Your task to perform on an android device: Add alienware area 51 to the cart on newegg.com Image 0: 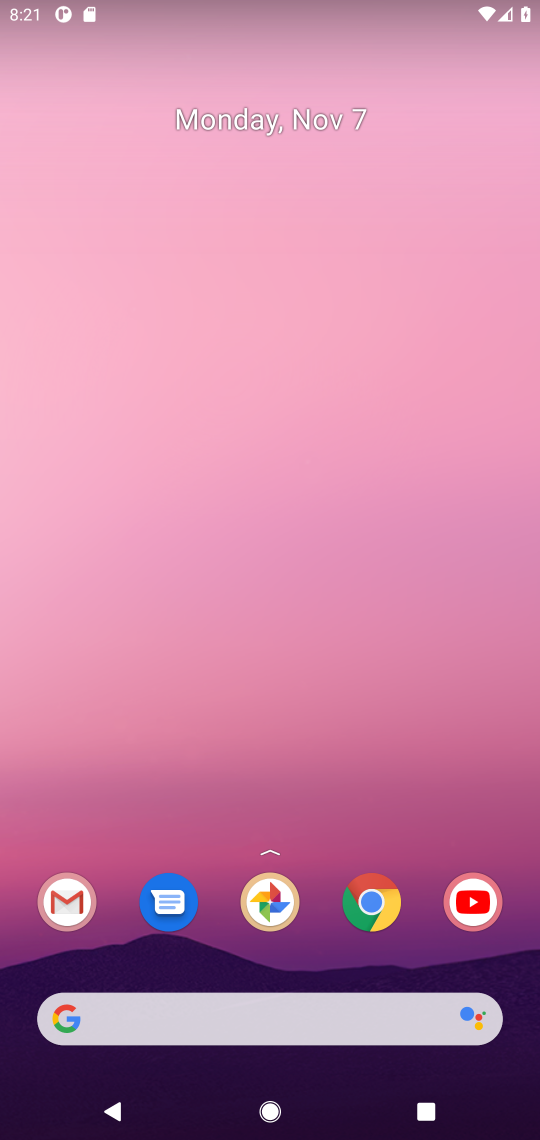
Step 0: click (382, 902)
Your task to perform on an android device: Add alienware area 51 to the cart on newegg.com Image 1: 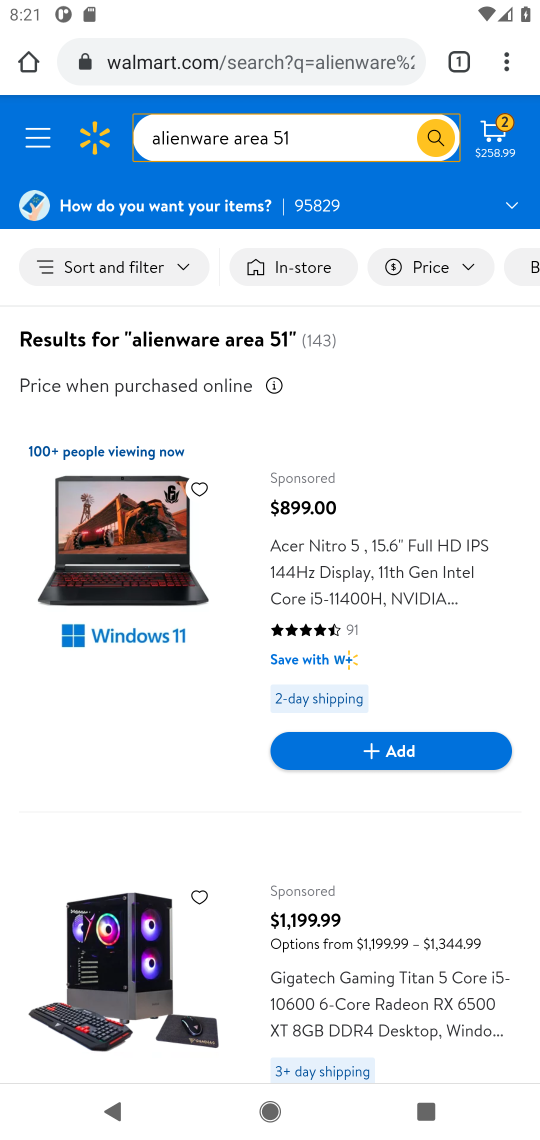
Step 1: click (300, 55)
Your task to perform on an android device: Add alienware area 51 to the cart on newegg.com Image 2: 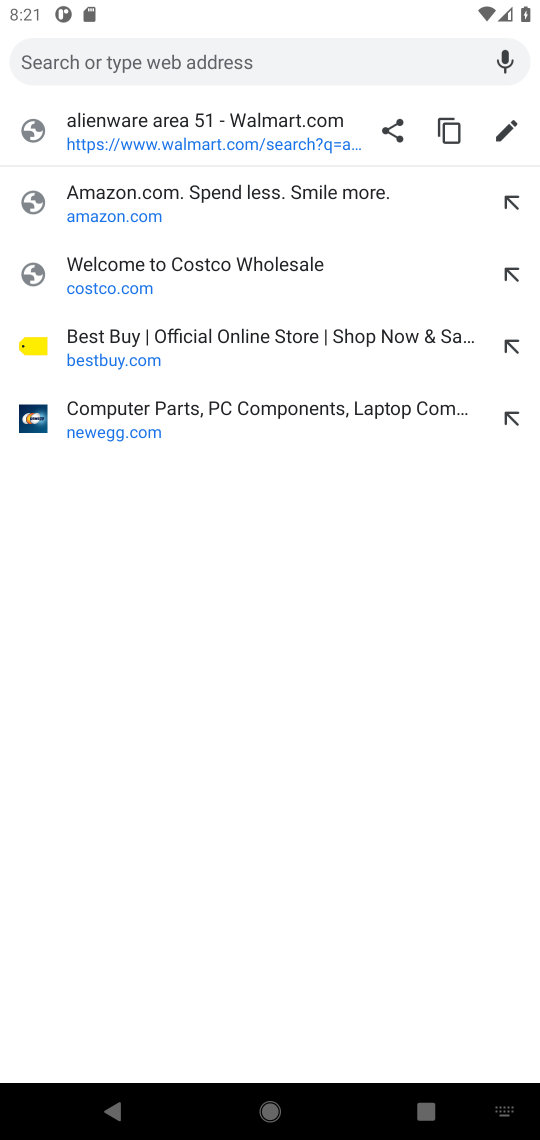
Step 2: click (73, 415)
Your task to perform on an android device: Add alienware area 51 to the cart on newegg.com Image 3: 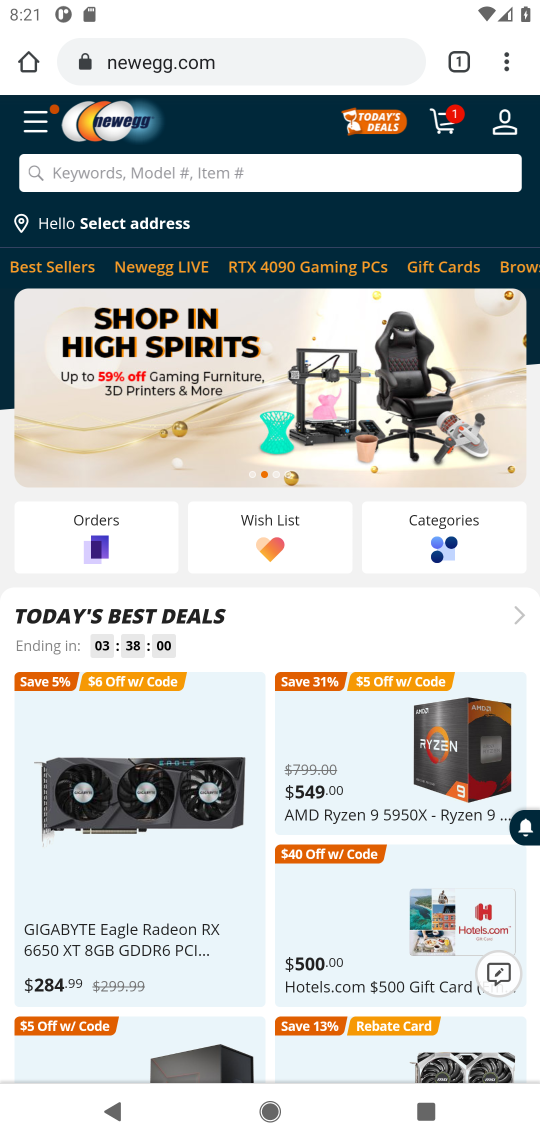
Step 3: click (137, 190)
Your task to perform on an android device: Add alienware area 51 to the cart on newegg.com Image 4: 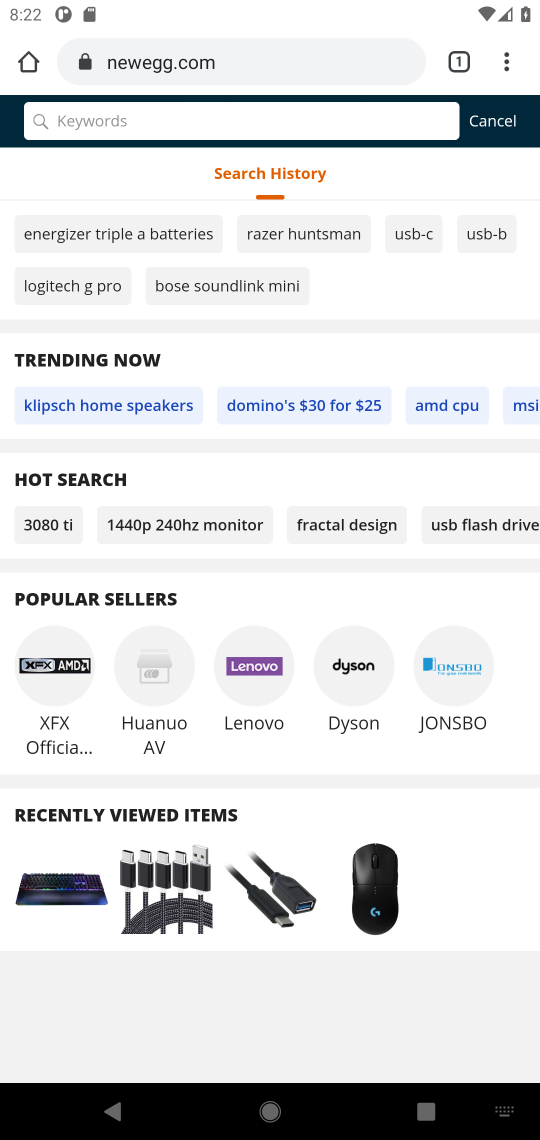
Step 4: type "alienware area 51"
Your task to perform on an android device: Add alienware area 51 to the cart on newegg.com Image 5: 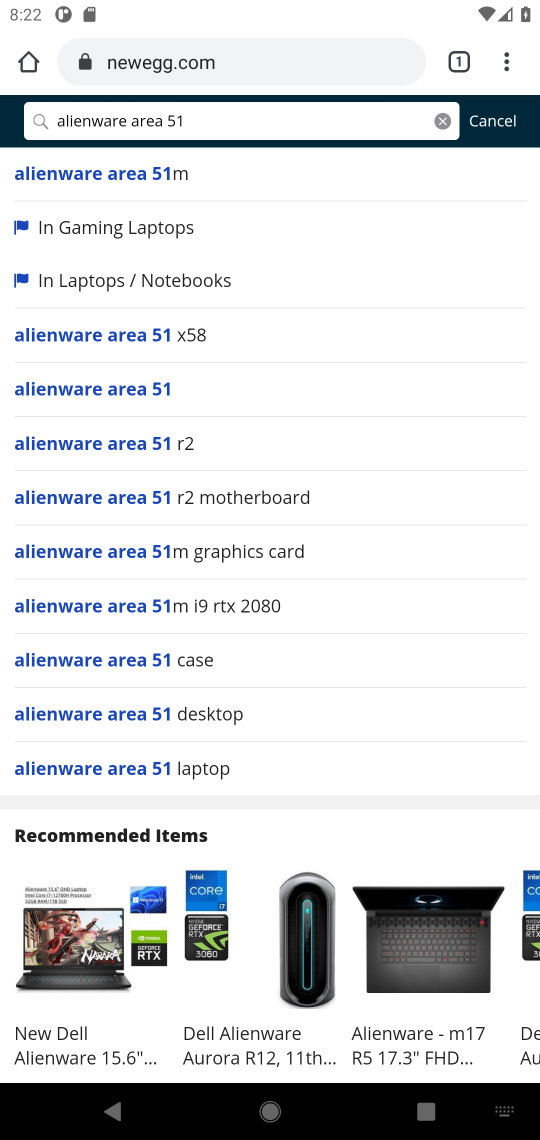
Step 5: click (103, 395)
Your task to perform on an android device: Add alienware area 51 to the cart on newegg.com Image 6: 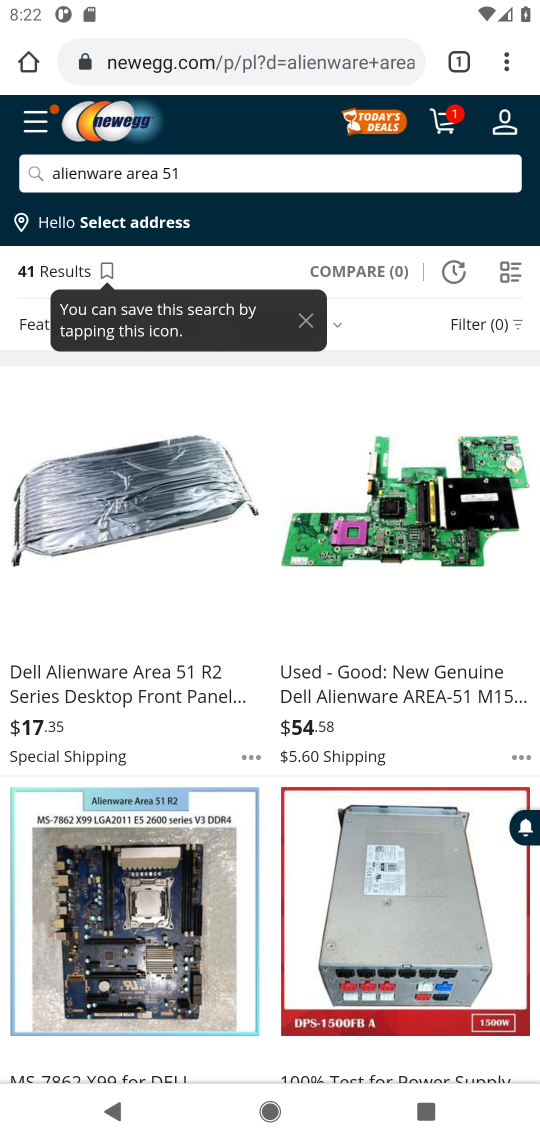
Step 6: click (140, 533)
Your task to perform on an android device: Add alienware area 51 to the cart on newegg.com Image 7: 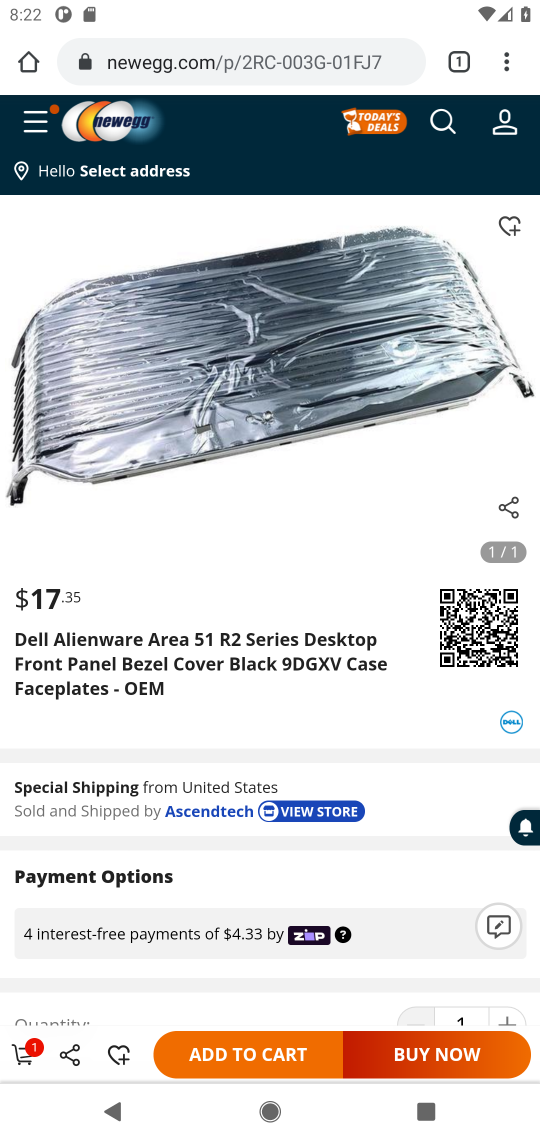
Step 7: click (215, 1058)
Your task to perform on an android device: Add alienware area 51 to the cart on newegg.com Image 8: 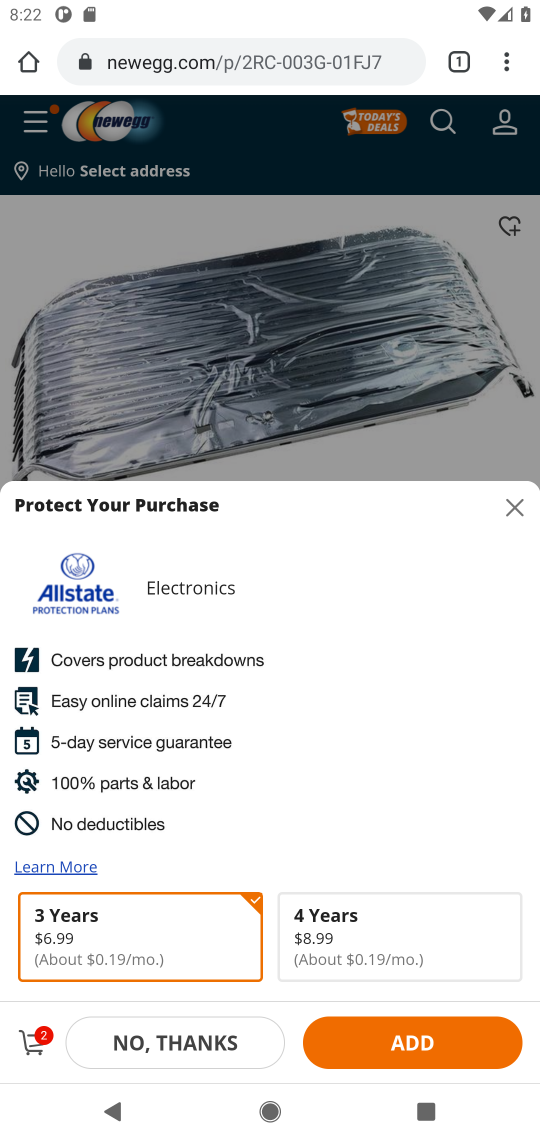
Step 8: task complete